Your task to perform on an android device: Open Chrome and go to settings Image 0: 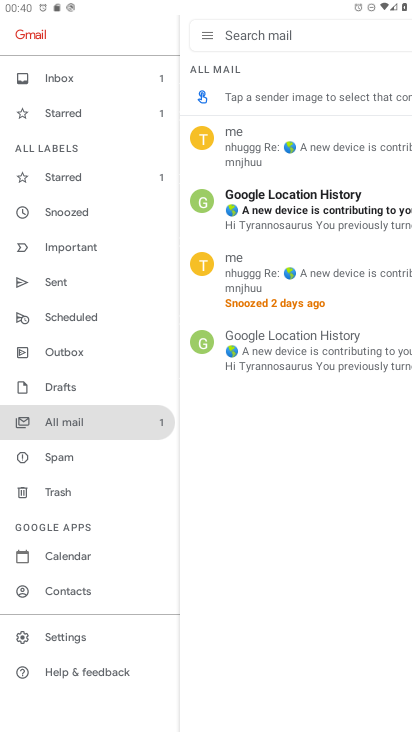
Step 0: press home button
Your task to perform on an android device: Open Chrome and go to settings Image 1: 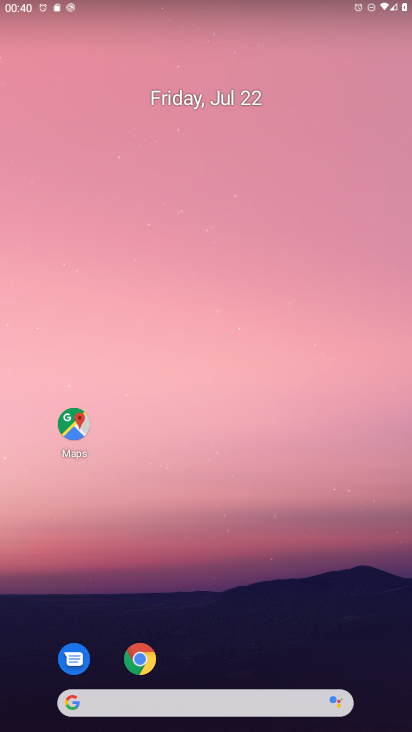
Step 1: click (141, 662)
Your task to perform on an android device: Open Chrome and go to settings Image 2: 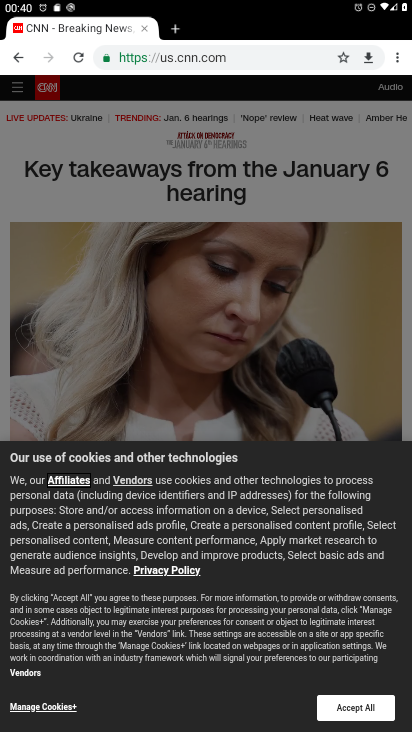
Step 2: click (399, 53)
Your task to perform on an android device: Open Chrome and go to settings Image 3: 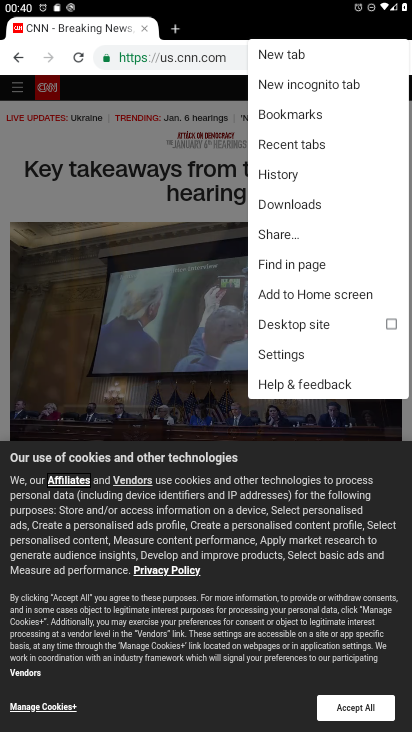
Step 3: click (291, 353)
Your task to perform on an android device: Open Chrome and go to settings Image 4: 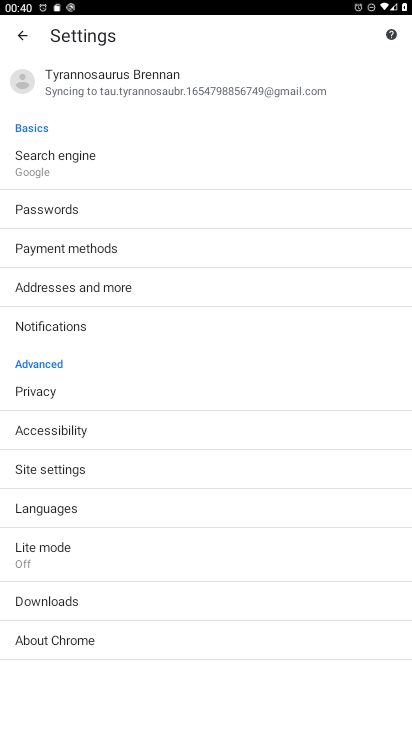
Step 4: task complete